Your task to perform on an android device: add a label to a message in the gmail app Image 0: 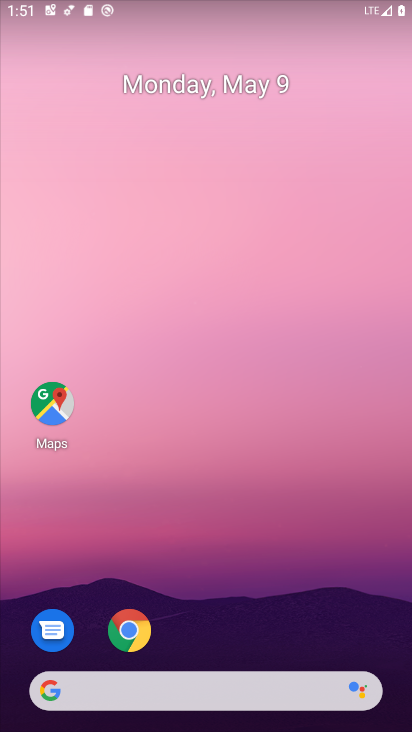
Step 0: drag from (205, 650) to (262, 174)
Your task to perform on an android device: add a label to a message in the gmail app Image 1: 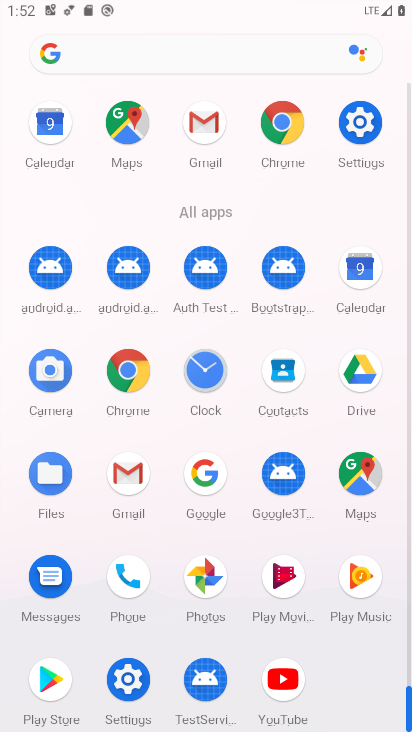
Step 1: click (136, 480)
Your task to perform on an android device: add a label to a message in the gmail app Image 2: 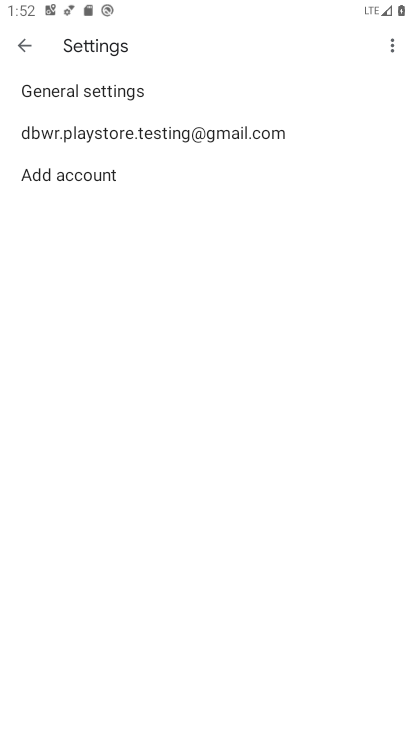
Step 2: click (32, 47)
Your task to perform on an android device: add a label to a message in the gmail app Image 3: 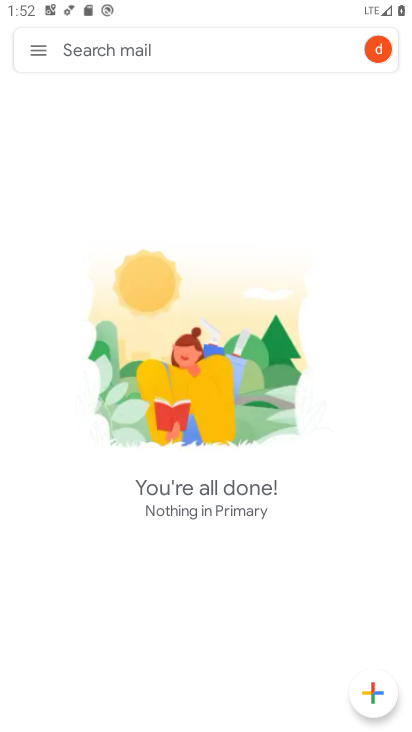
Step 3: click (41, 42)
Your task to perform on an android device: add a label to a message in the gmail app Image 4: 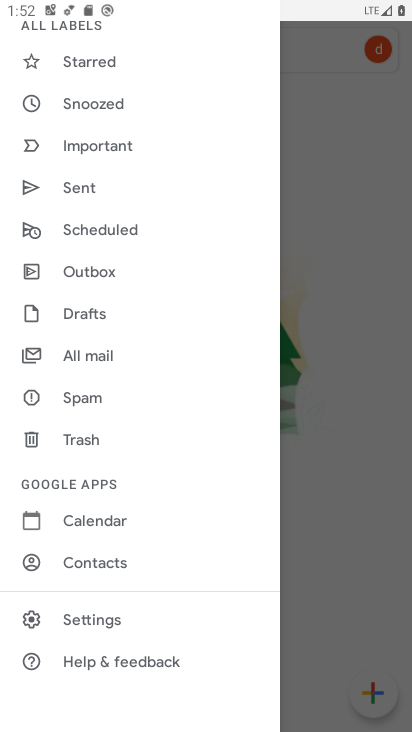
Step 4: click (99, 356)
Your task to perform on an android device: add a label to a message in the gmail app Image 5: 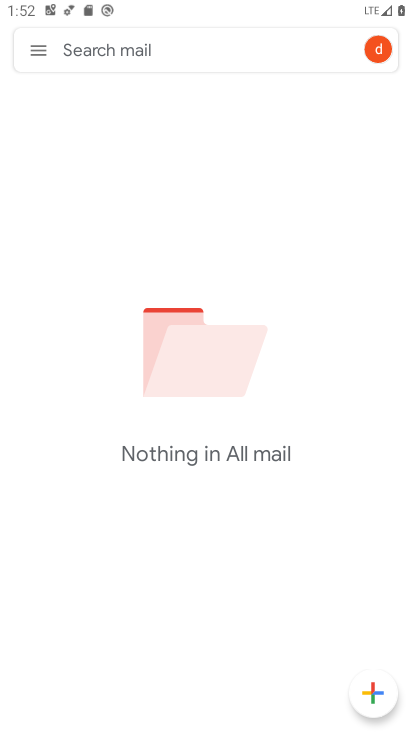
Step 5: task complete